Your task to perform on an android device: check data usage Image 0: 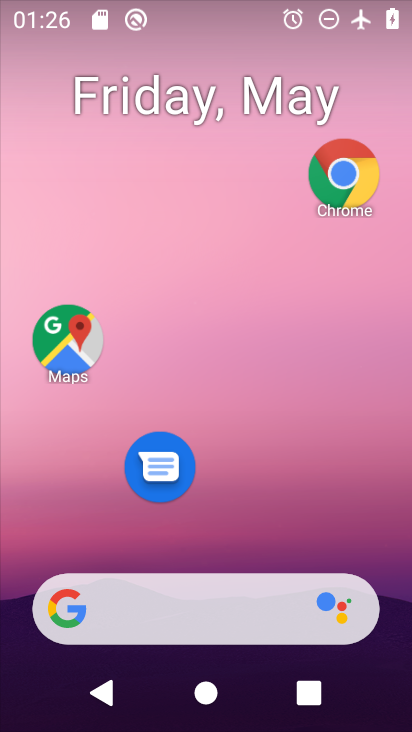
Step 0: drag from (260, 497) to (290, 211)
Your task to perform on an android device: check data usage Image 1: 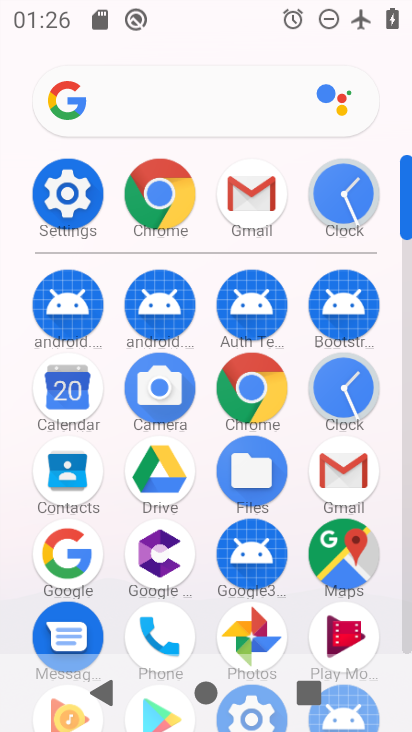
Step 1: click (80, 196)
Your task to perform on an android device: check data usage Image 2: 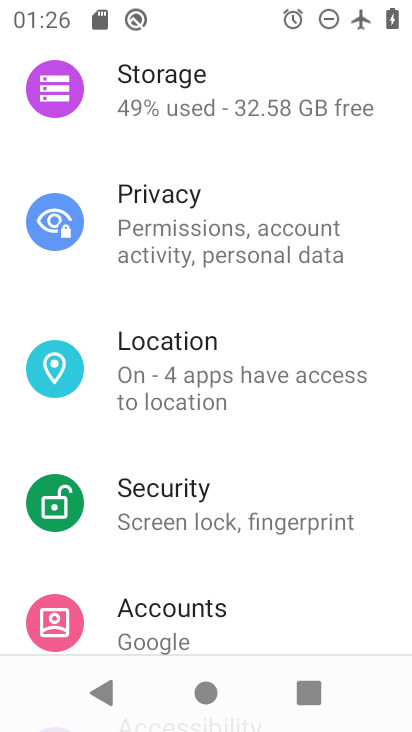
Step 2: drag from (211, 172) to (147, 608)
Your task to perform on an android device: check data usage Image 3: 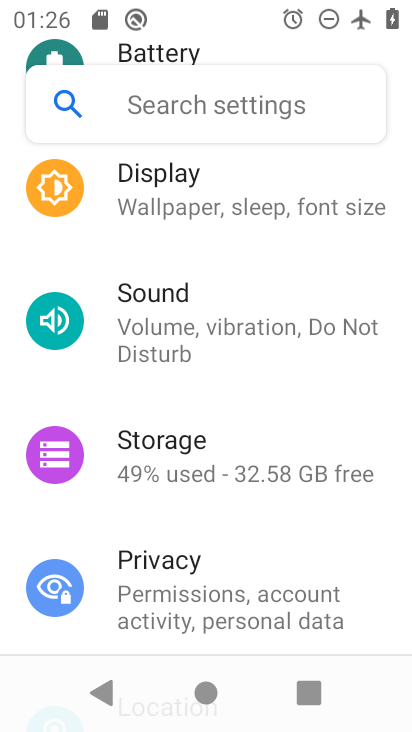
Step 3: drag from (186, 243) to (158, 606)
Your task to perform on an android device: check data usage Image 4: 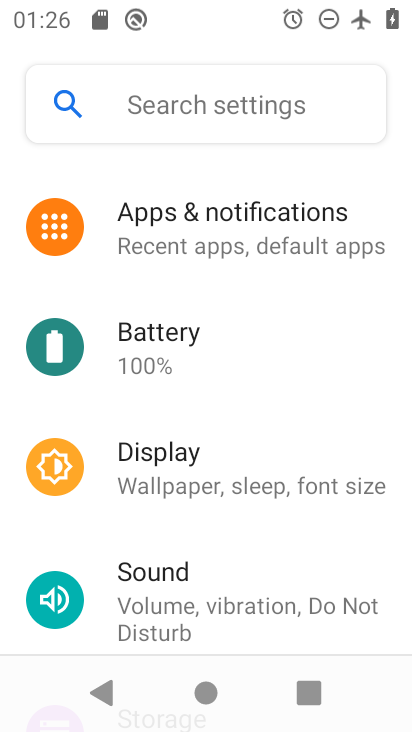
Step 4: drag from (221, 214) to (226, 542)
Your task to perform on an android device: check data usage Image 5: 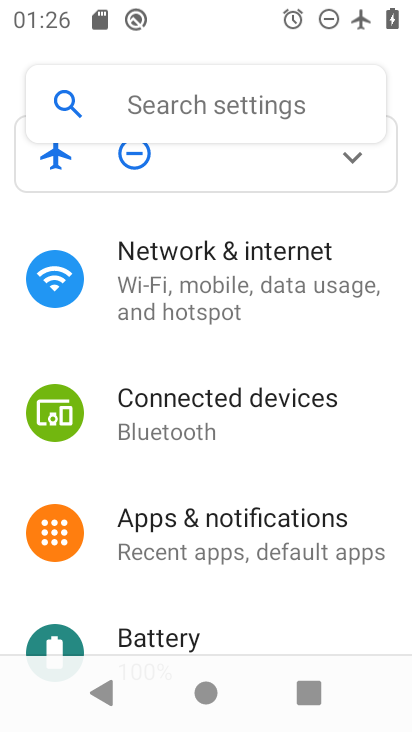
Step 5: click (167, 274)
Your task to perform on an android device: check data usage Image 6: 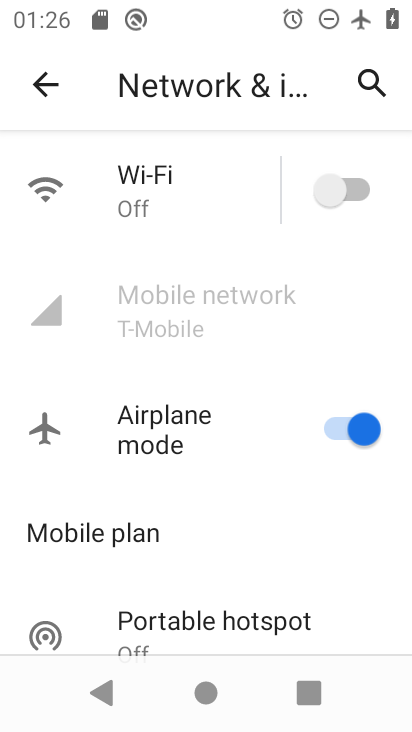
Step 6: task complete